Your task to perform on an android device: toggle show notifications on the lock screen Image 0: 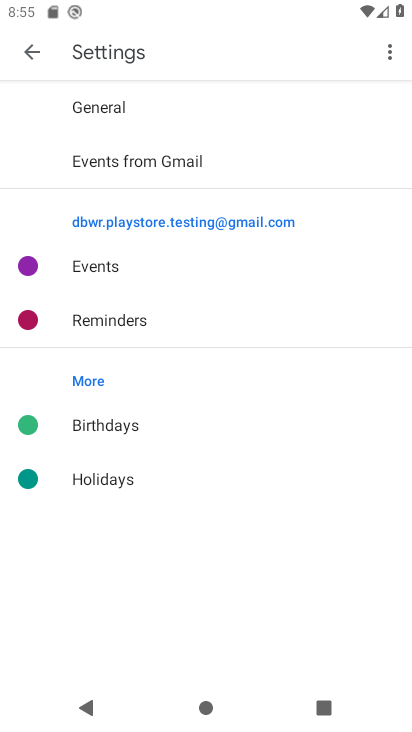
Step 0: press home button
Your task to perform on an android device: toggle show notifications on the lock screen Image 1: 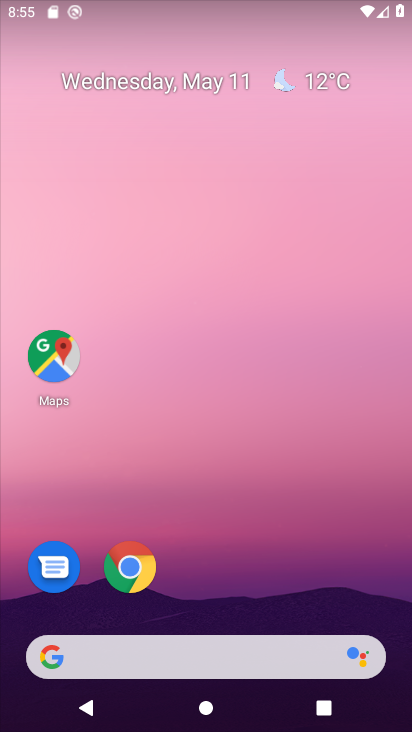
Step 1: drag from (228, 431) to (215, 89)
Your task to perform on an android device: toggle show notifications on the lock screen Image 2: 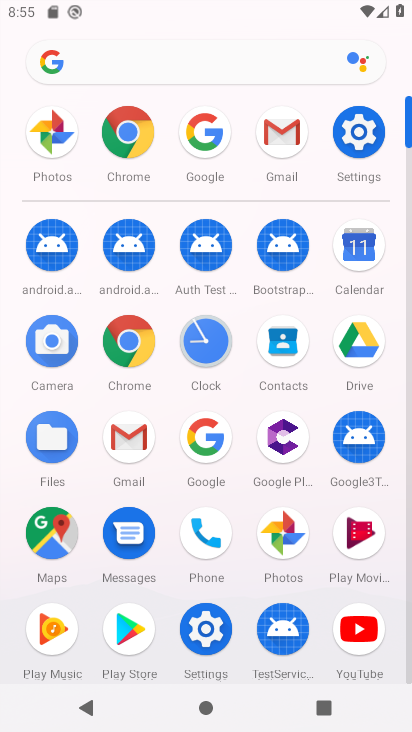
Step 2: click (360, 135)
Your task to perform on an android device: toggle show notifications on the lock screen Image 3: 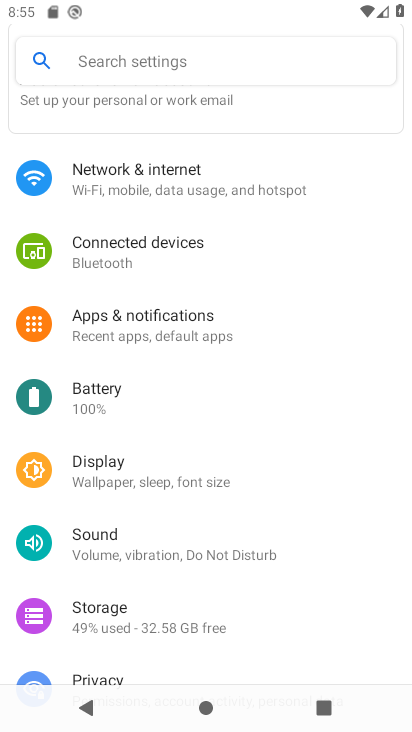
Step 3: click (192, 333)
Your task to perform on an android device: toggle show notifications on the lock screen Image 4: 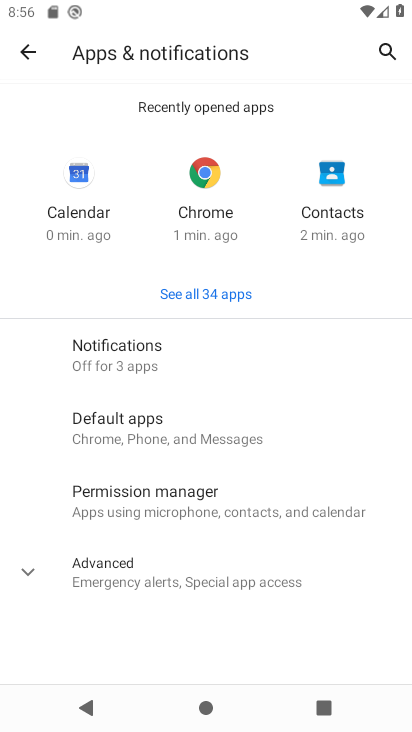
Step 4: click (184, 359)
Your task to perform on an android device: toggle show notifications on the lock screen Image 5: 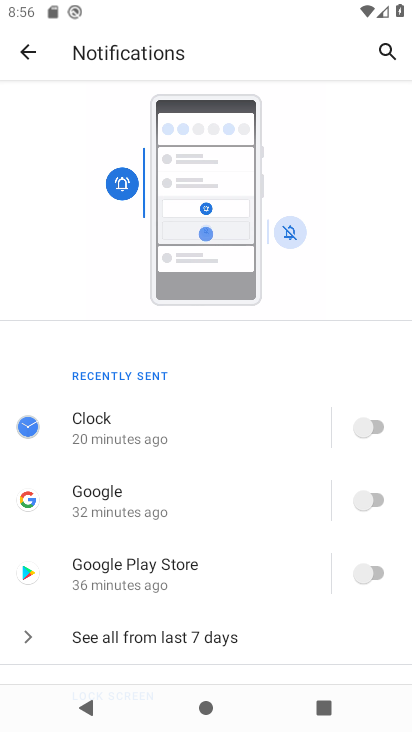
Step 5: drag from (194, 543) to (194, 172)
Your task to perform on an android device: toggle show notifications on the lock screen Image 6: 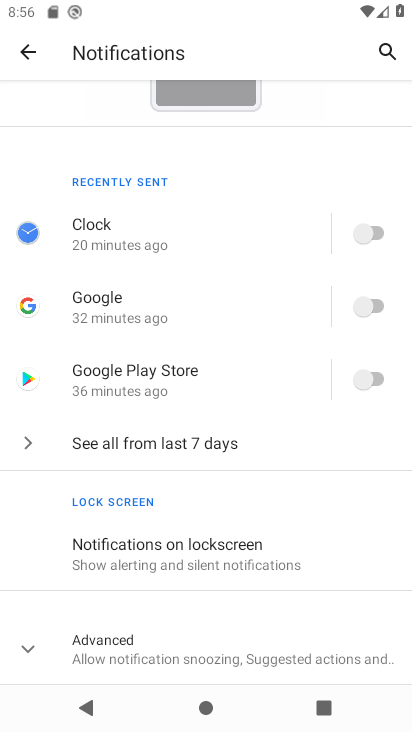
Step 6: click (198, 558)
Your task to perform on an android device: toggle show notifications on the lock screen Image 7: 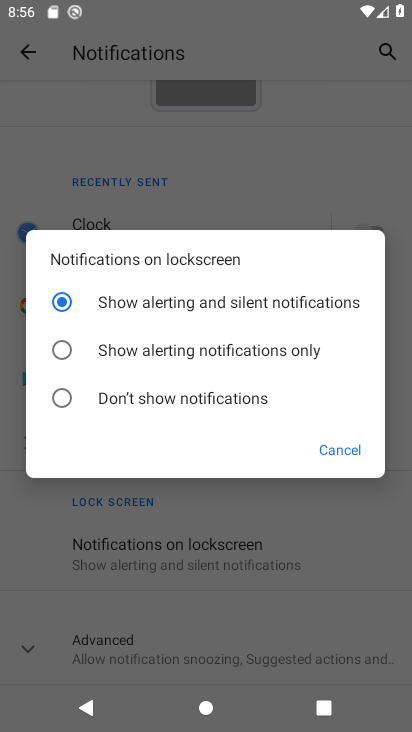
Step 7: click (173, 392)
Your task to perform on an android device: toggle show notifications on the lock screen Image 8: 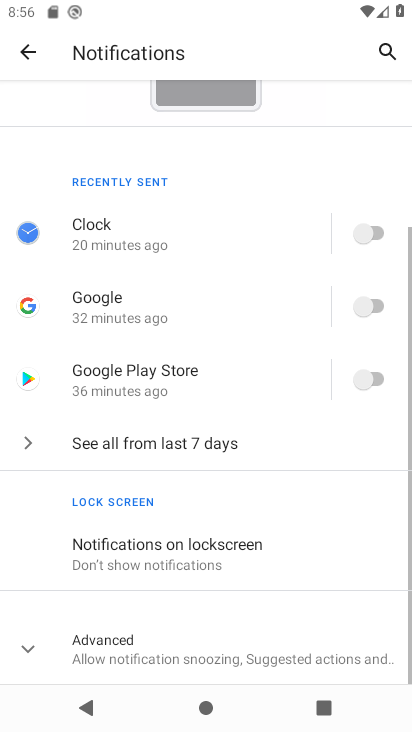
Step 8: task complete